Your task to perform on an android device: Toggle the flashlight Image 0: 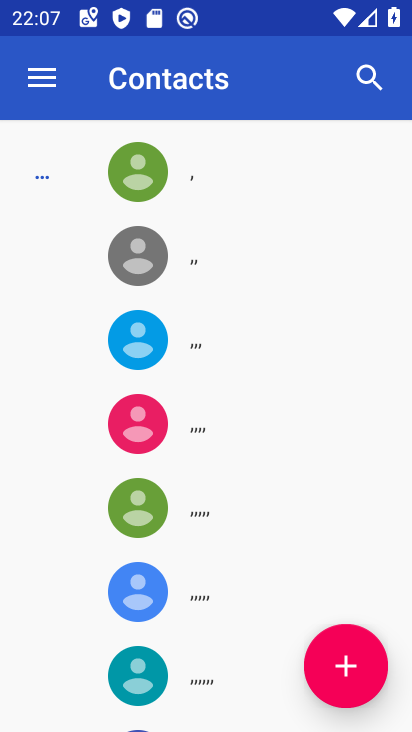
Step 0: press home button
Your task to perform on an android device: Toggle the flashlight Image 1: 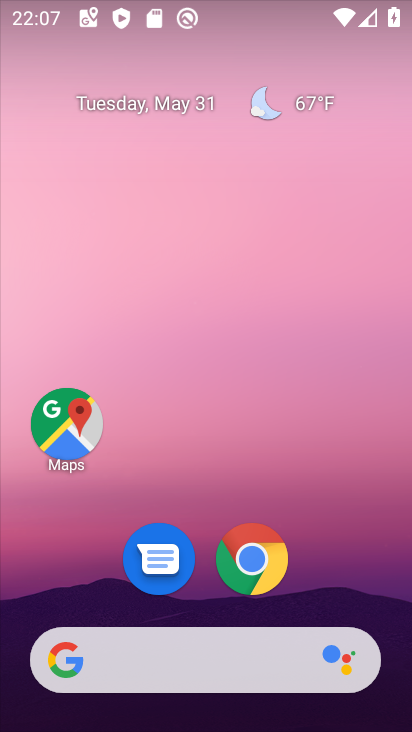
Step 1: drag from (319, 546) to (316, 53)
Your task to perform on an android device: Toggle the flashlight Image 2: 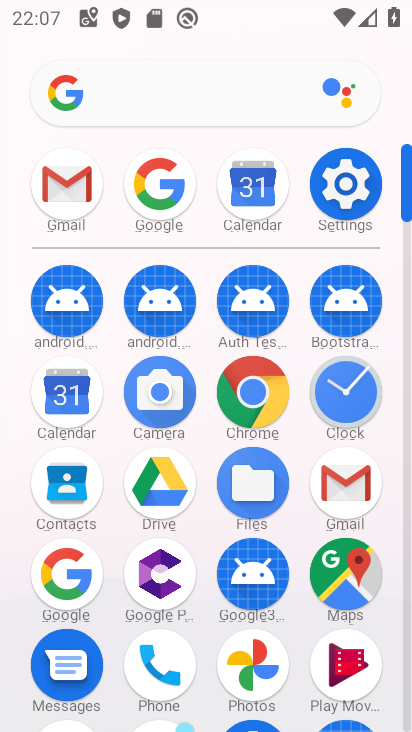
Step 2: click (341, 182)
Your task to perform on an android device: Toggle the flashlight Image 3: 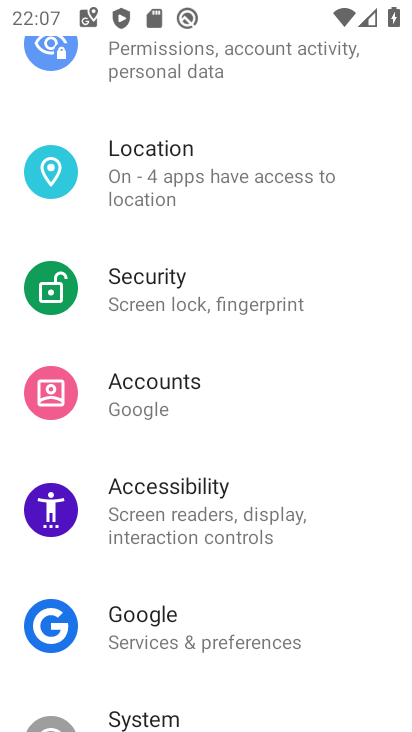
Step 3: drag from (218, 119) to (203, 626)
Your task to perform on an android device: Toggle the flashlight Image 4: 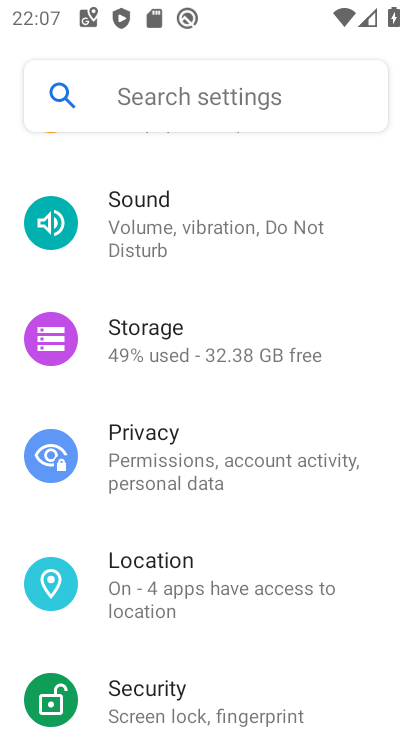
Step 4: click (171, 99)
Your task to perform on an android device: Toggle the flashlight Image 5: 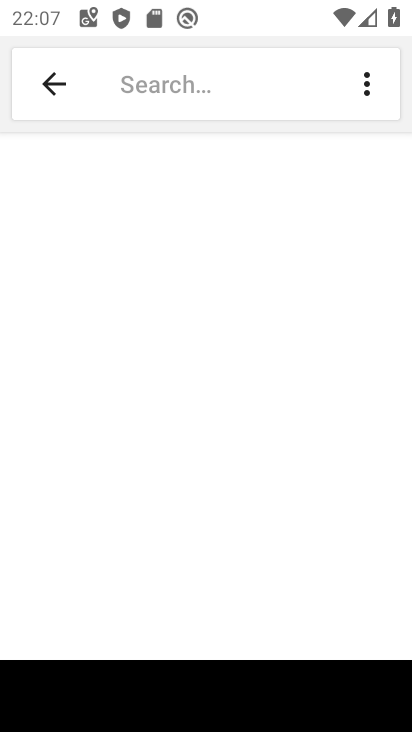
Step 5: type "flash"
Your task to perform on an android device: Toggle the flashlight Image 6: 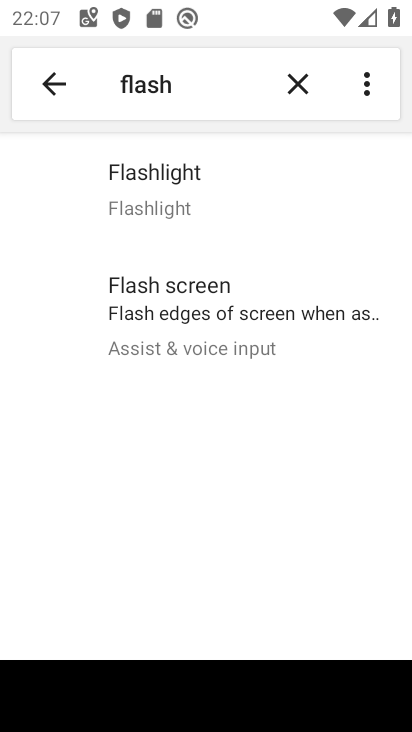
Step 6: task complete